Your task to perform on an android device: Search for Mexican restaurants on Maps Image 0: 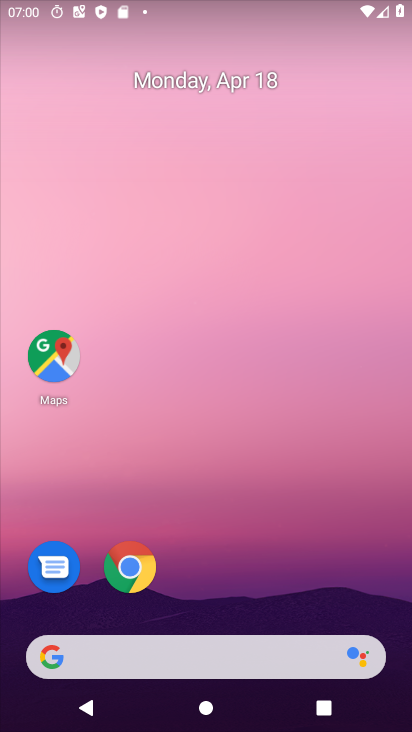
Step 0: type "Mexican restaurants on"
Your task to perform on an android device: Search for Mexican restaurants on Maps Image 1: 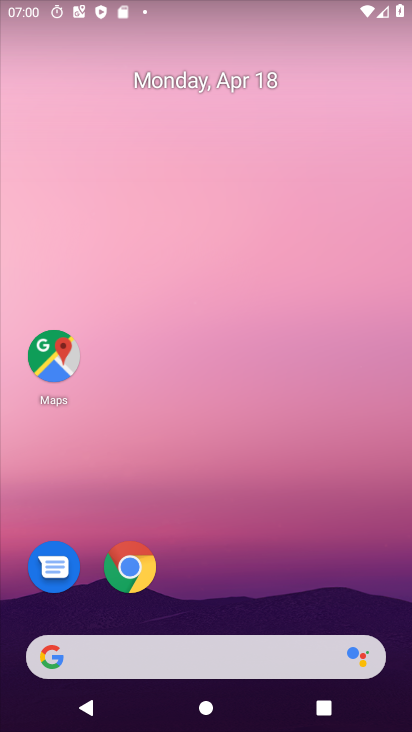
Step 1: drag from (308, 79) to (249, 27)
Your task to perform on an android device: Search for Mexican restaurants on Maps Image 2: 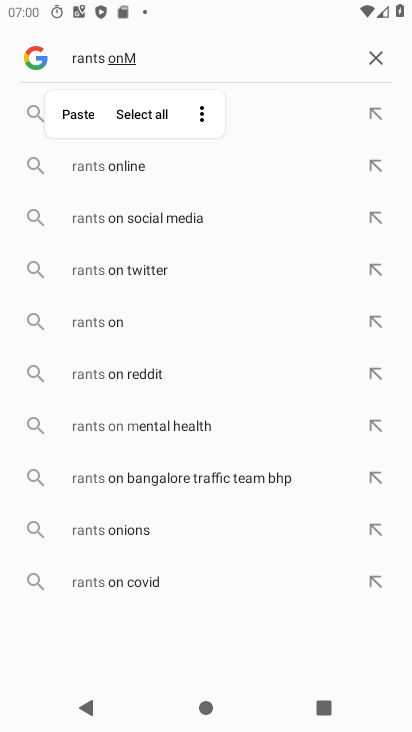
Step 2: press home button
Your task to perform on an android device: Search for Mexican restaurants on Maps Image 3: 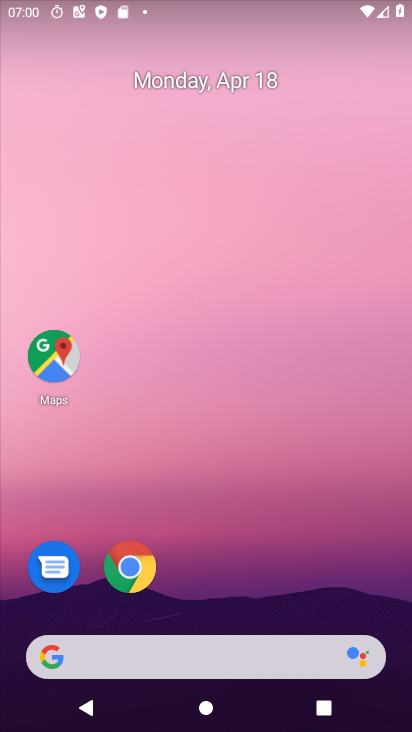
Step 3: drag from (304, 554) to (202, 158)
Your task to perform on an android device: Search for Mexican restaurants on Maps Image 4: 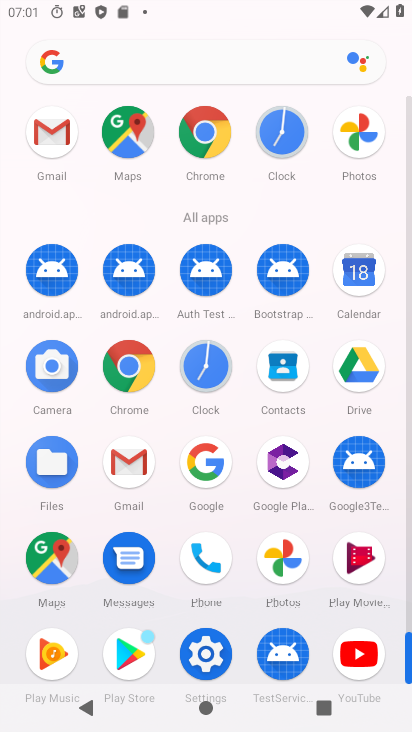
Step 4: click (118, 136)
Your task to perform on an android device: Search for Mexican restaurants on Maps Image 5: 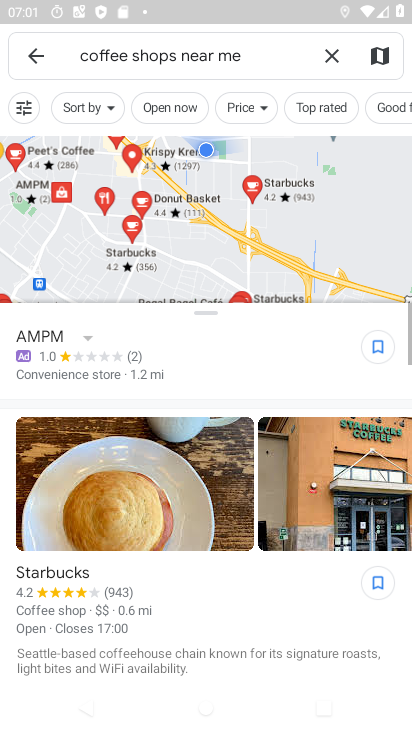
Step 5: click (335, 56)
Your task to perform on an android device: Search for Mexican restaurants on Maps Image 6: 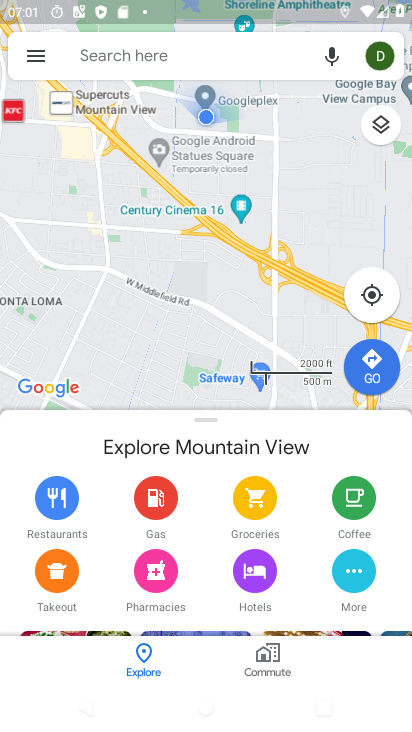
Step 6: click (309, 54)
Your task to perform on an android device: Search for Mexican restaurants on Maps Image 7: 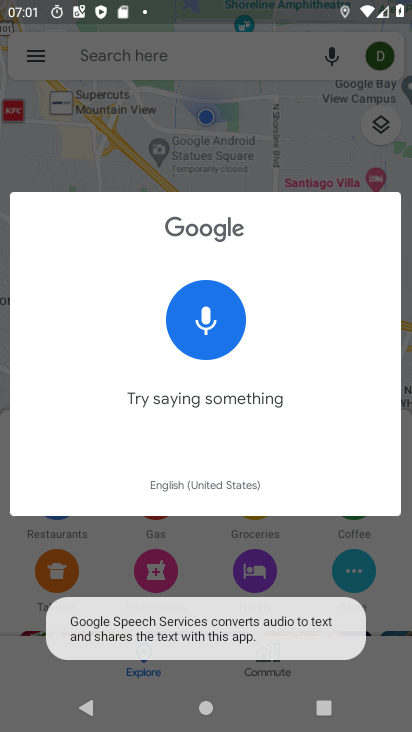
Step 7: click (252, 52)
Your task to perform on an android device: Search for Mexican restaurants on Maps Image 8: 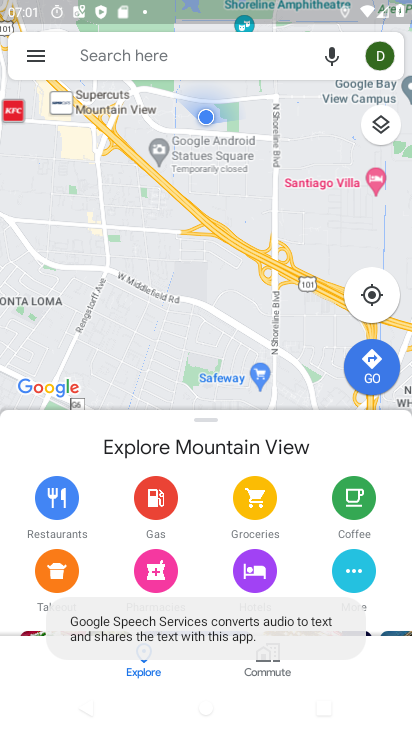
Step 8: click (252, 52)
Your task to perform on an android device: Search for Mexican restaurants on Maps Image 9: 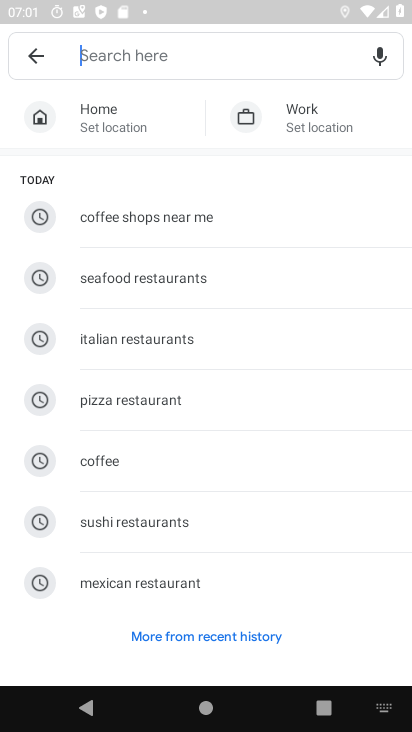
Step 9: click (252, 52)
Your task to perform on an android device: Search for Mexican restaurants on Maps Image 10: 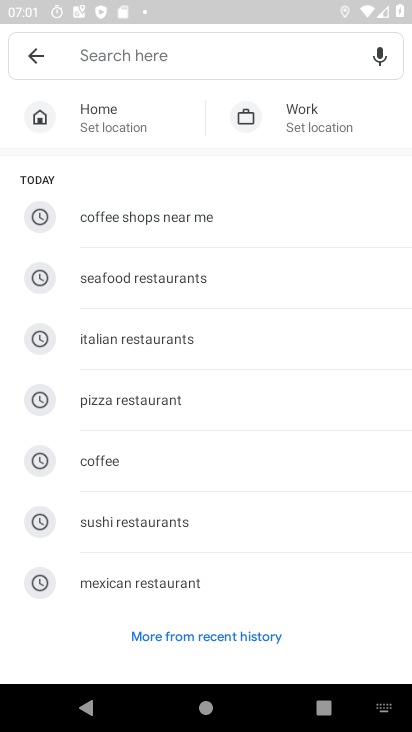
Step 10: click (252, 52)
Your task to perform on an android device: Search for Mexican restaurants on Maps Image 11: 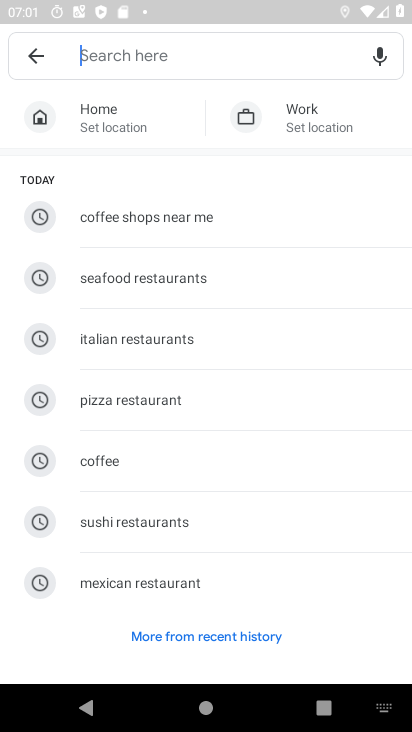
Step 11: type "Mexican restaurants "
Your task to perform on an android device: Search for Mexican restaurants on Maps Image 12: 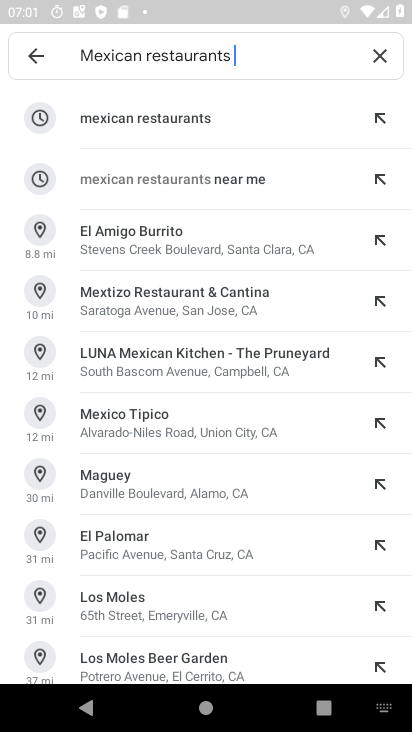
Step 12: click (285, 105)
Your task to perform on an android device: Search for Mexican restaurants on Maps Image 13: 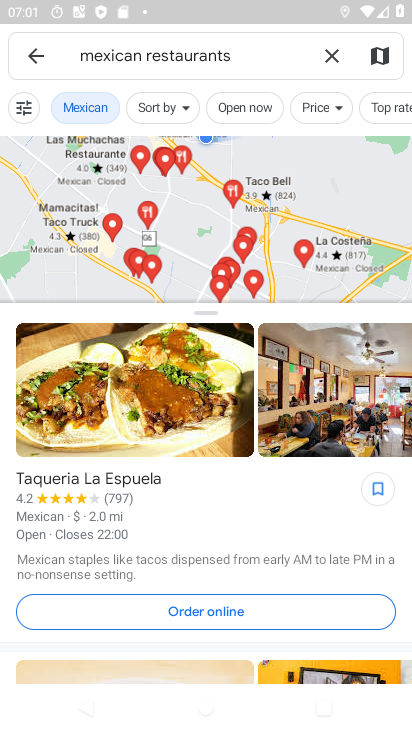
Step 13: task complete